Your task to perform on an android device: turn notification dots on Image 0: 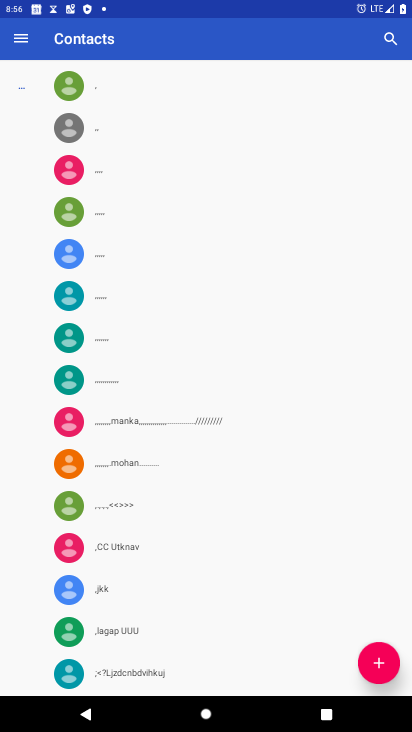
Step 0: press home button
Your task to perform on an android device: turn notification dots on Image 1: 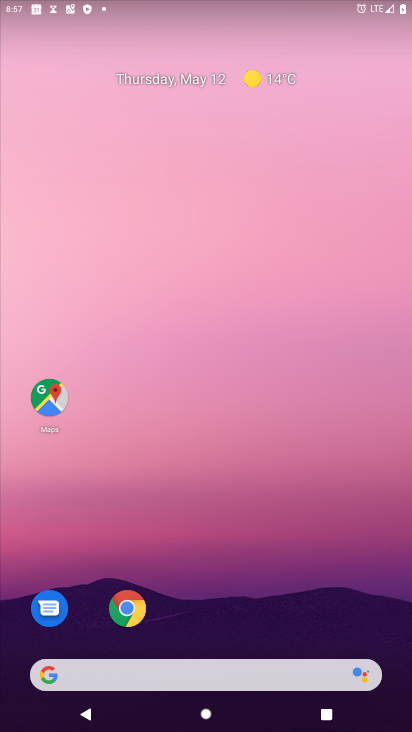
Step 1: drag from (174, 585) to (263, 160)
Your task to perform on an android device: turn notification dots on Image 2: 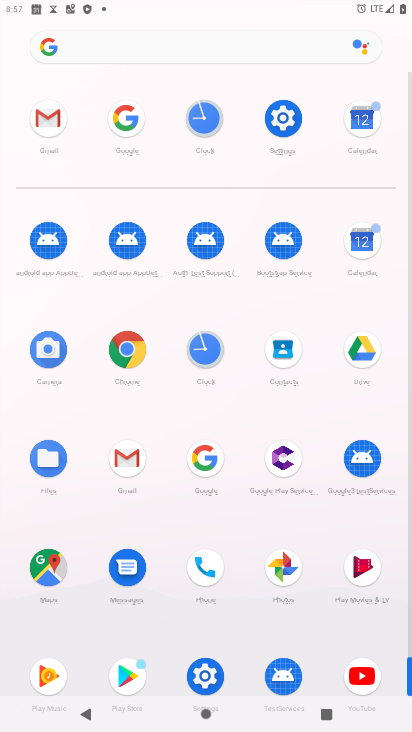
Step 2: click (281, 123)
Your task to perform on an android device: turn notification dots on Image 3: 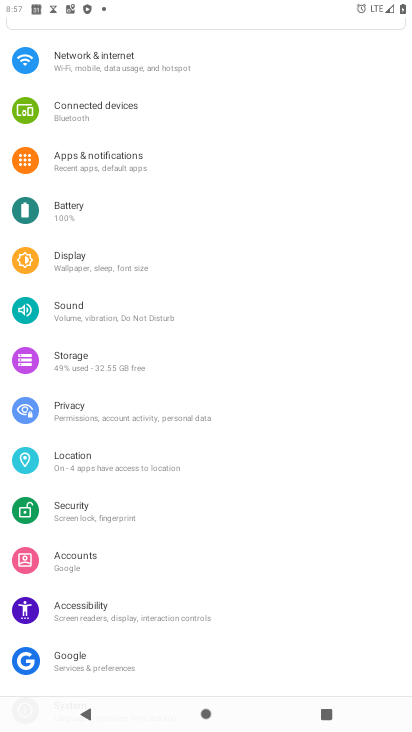
Step 3: click (130, 159)
Your task to perform on an android device: turn notification dots on Image 4: 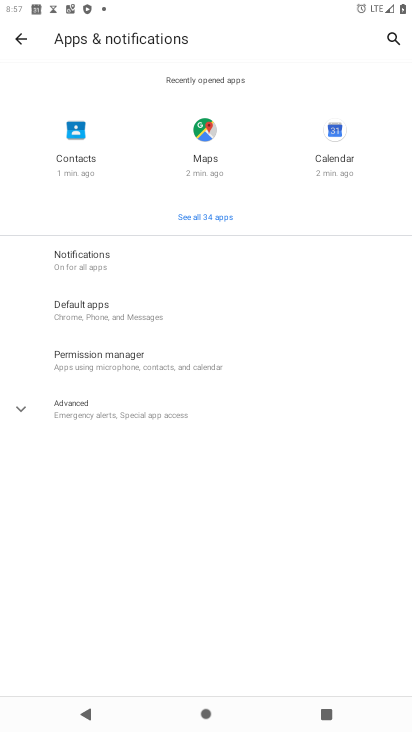
Step 4: click (54, 253)
Your task to perform on an android device: turn notification dots on Image 5: 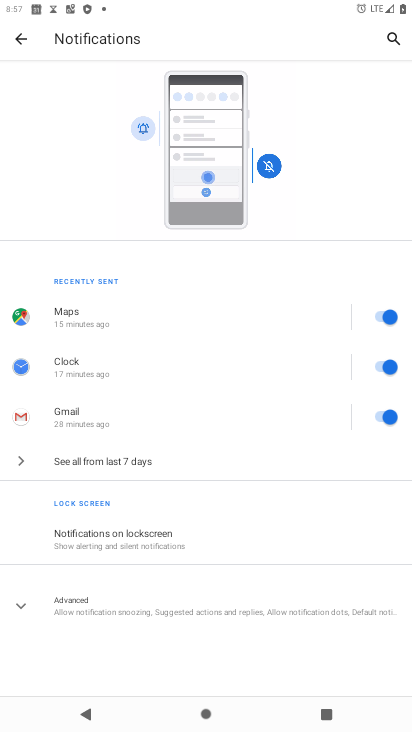
Step 5: click (99, 602)
Your task to perform on an android device: turn notification dots on Image 6: 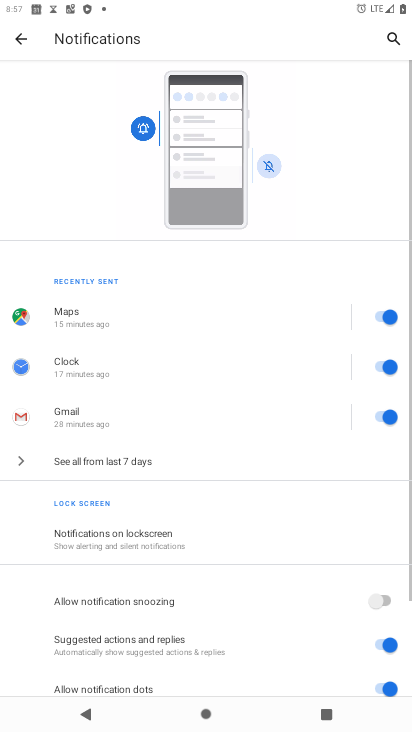
Step 6: task complete